Your task to perform on an android device: open app "Gboard" Image 0: 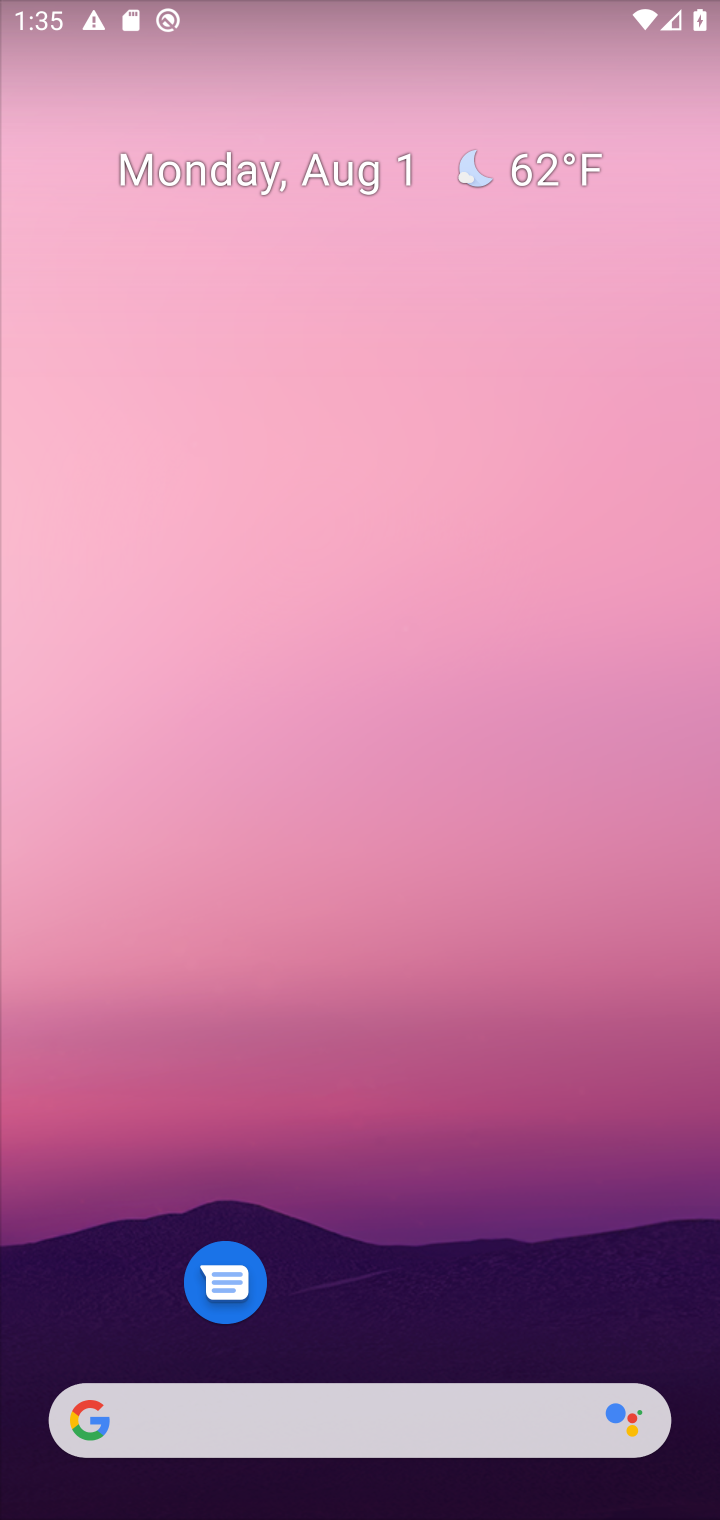
Step 0: drag from (415, 1392) to (369, 111)
Your task to perform on an android device: open app "Gboard" Image 1: 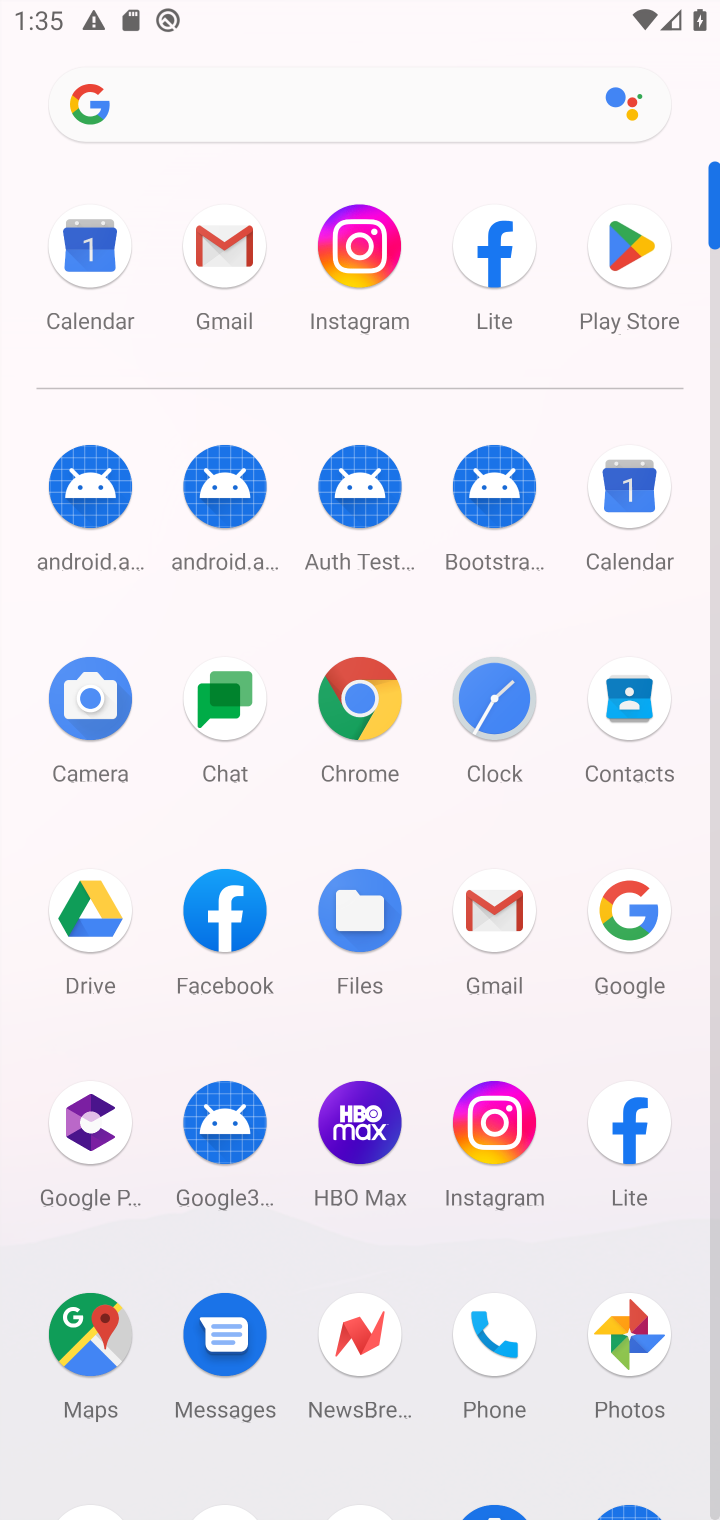
Step 1: click (625, 248)
Your task to perform on an android device: open app "Gboard" Image 2: 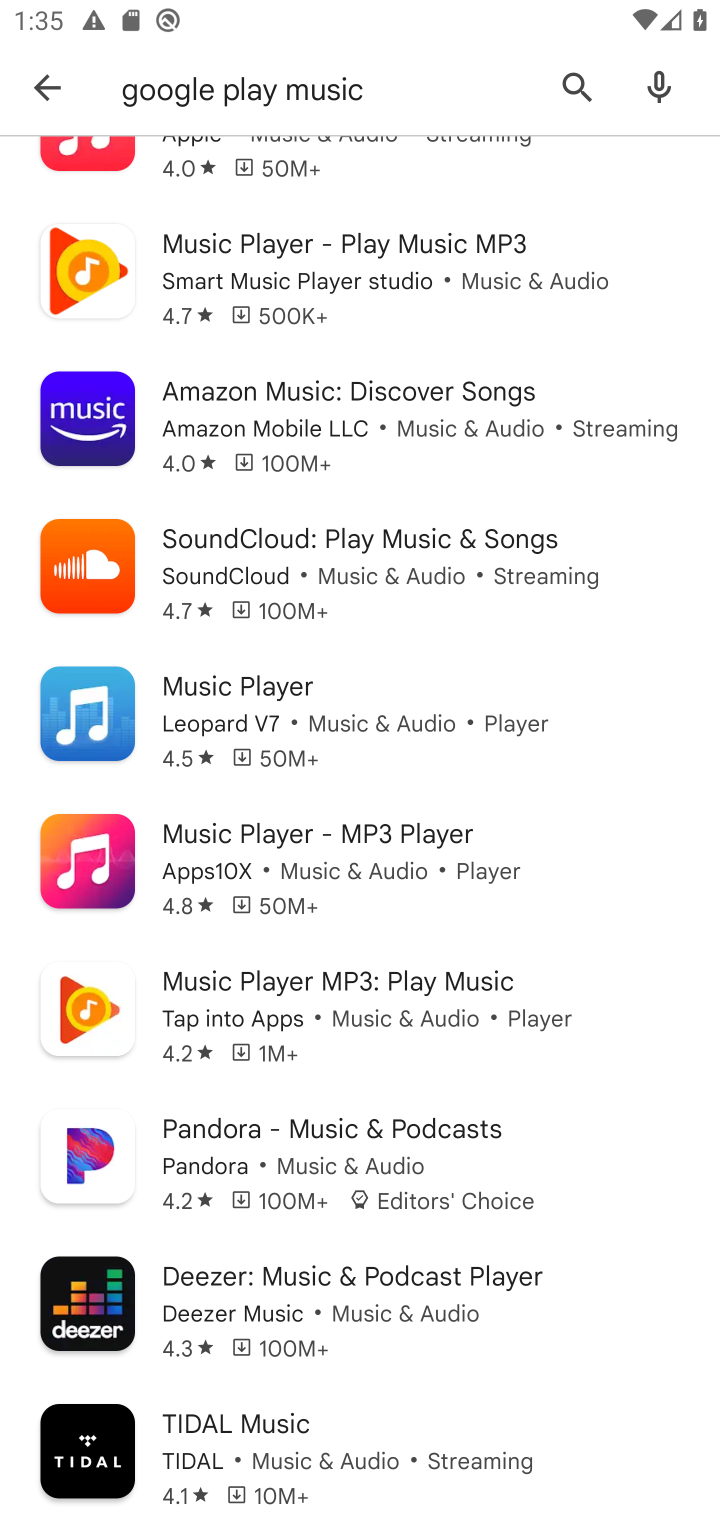
Step 2: click (42, 80)
Your task to perform on an android device: open app "Gboard" Image 3: 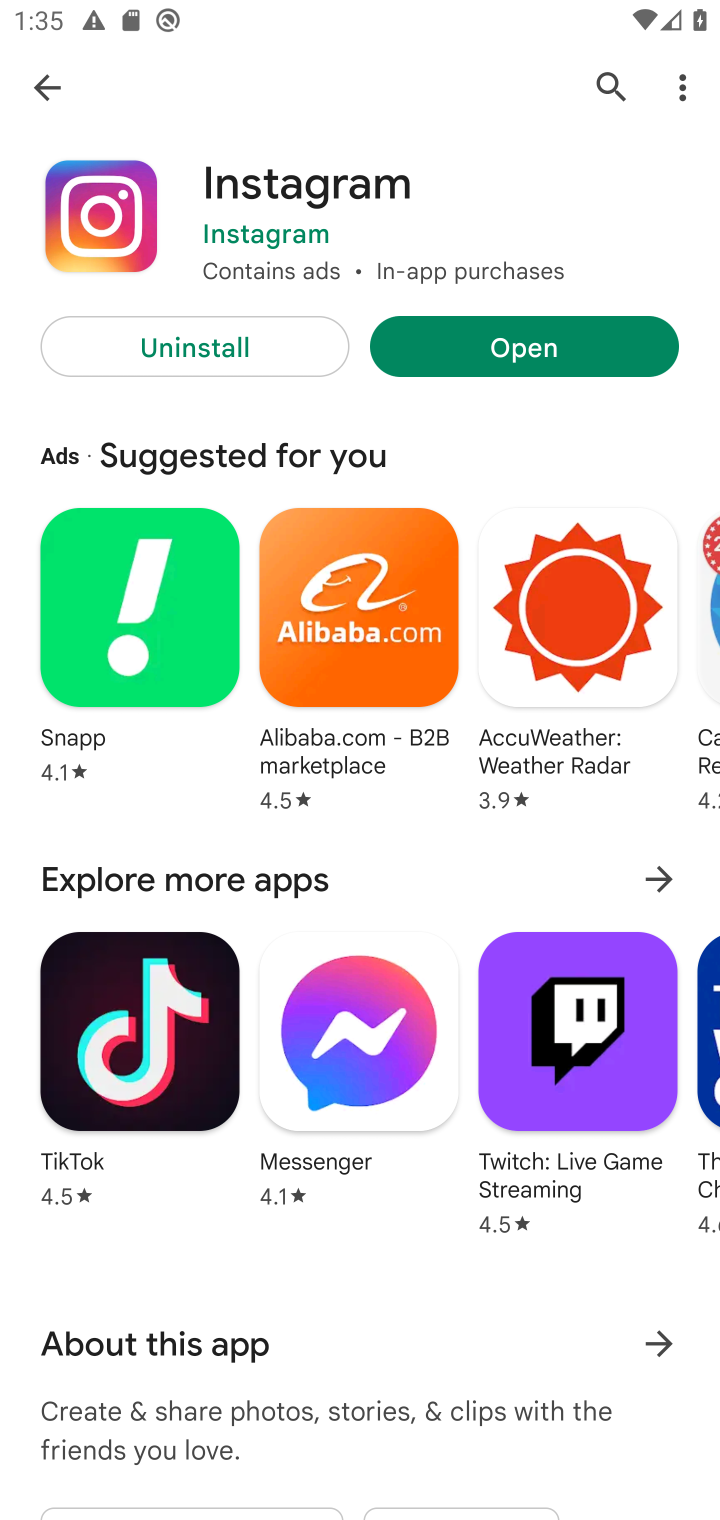
Step 3: click (39, 74)
Your task to perform on an android device: open app "Gboard" Image 4: 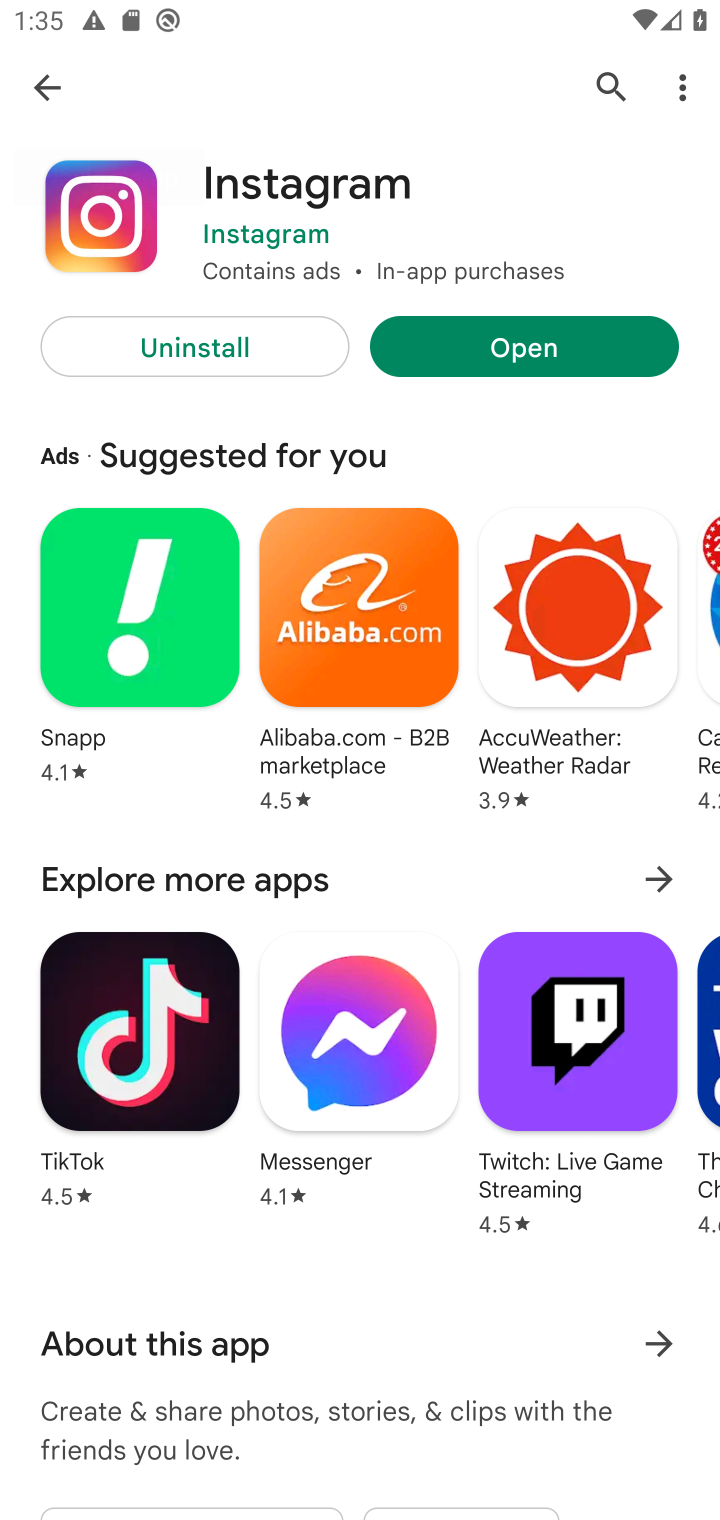
Step 4: click (50, 78)
Your task to perform on an android device: open app "Gboard" Image 5: 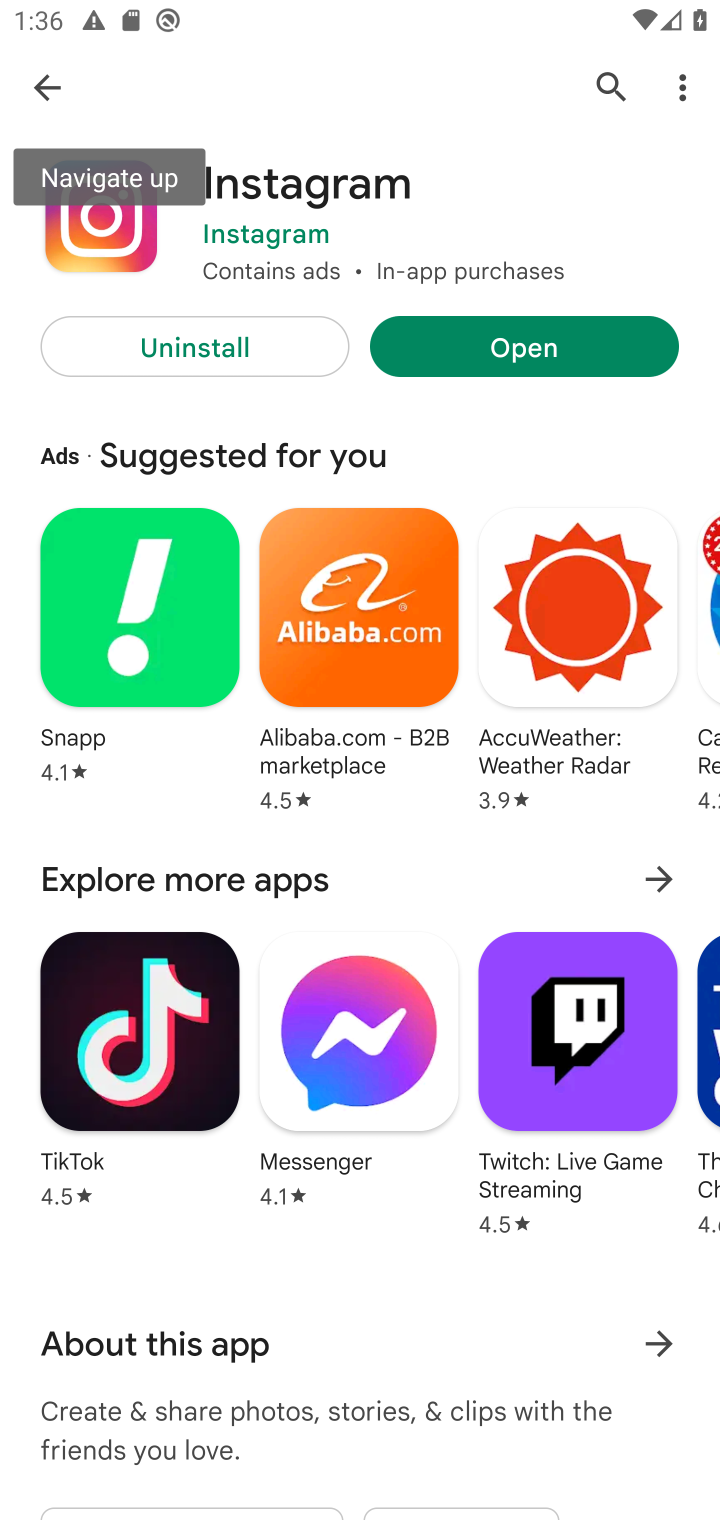
Step 5: click (50, 78)
Your task to perform on an android device: open app "Gboard" Image 6: 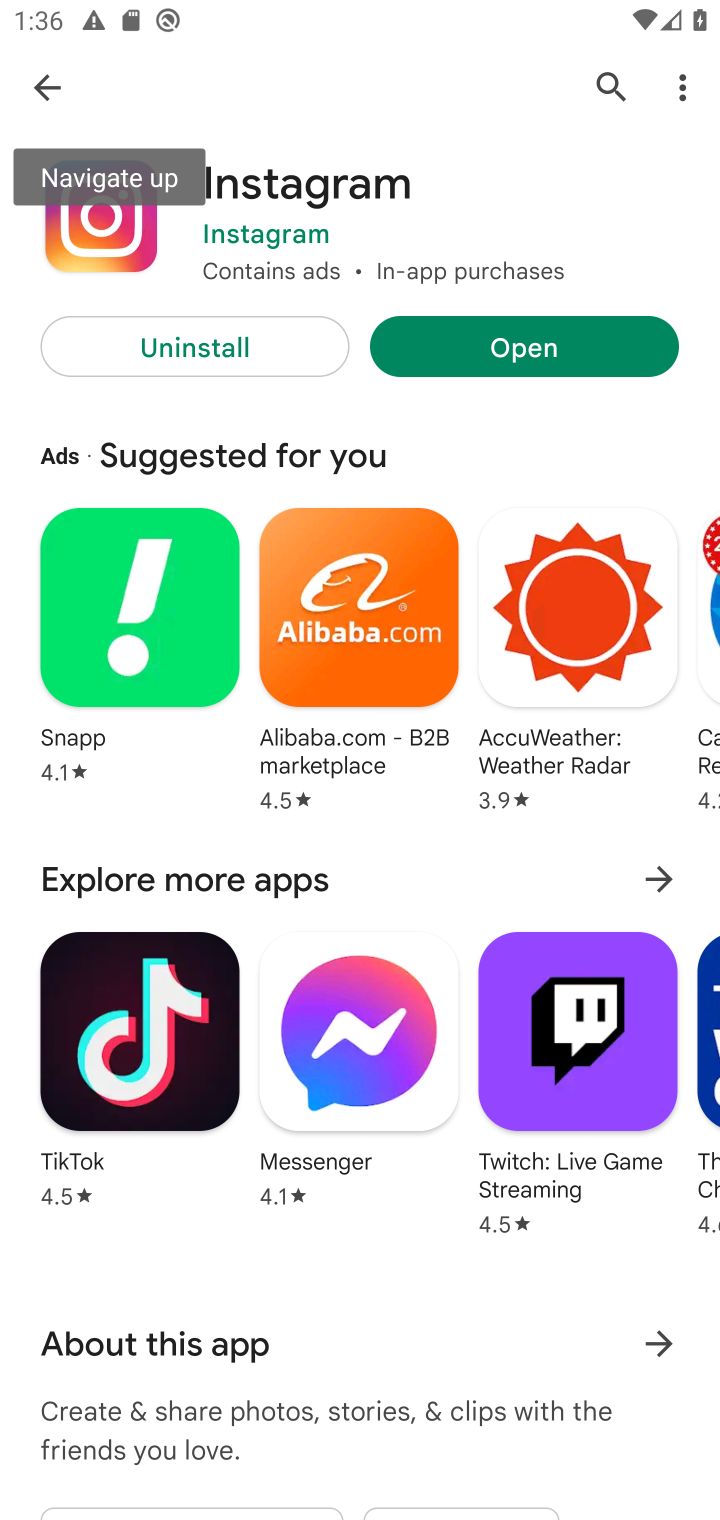
Step 6: click (50, 78)
Your task to perform on an android device: open app "Gboard" Image 7: 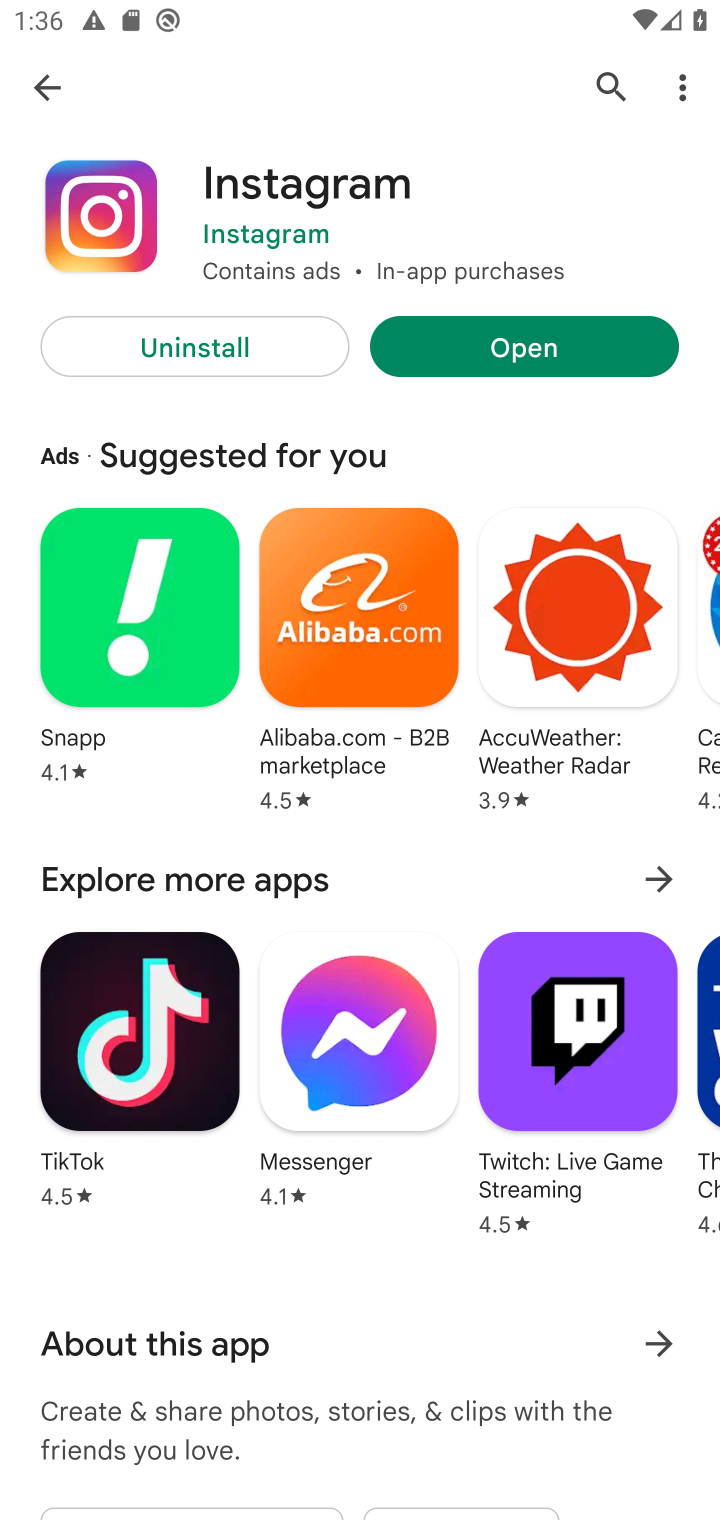
Step 7: click (601, 92)
Your task to perform on an android device: open app "Gboard" Image 8: 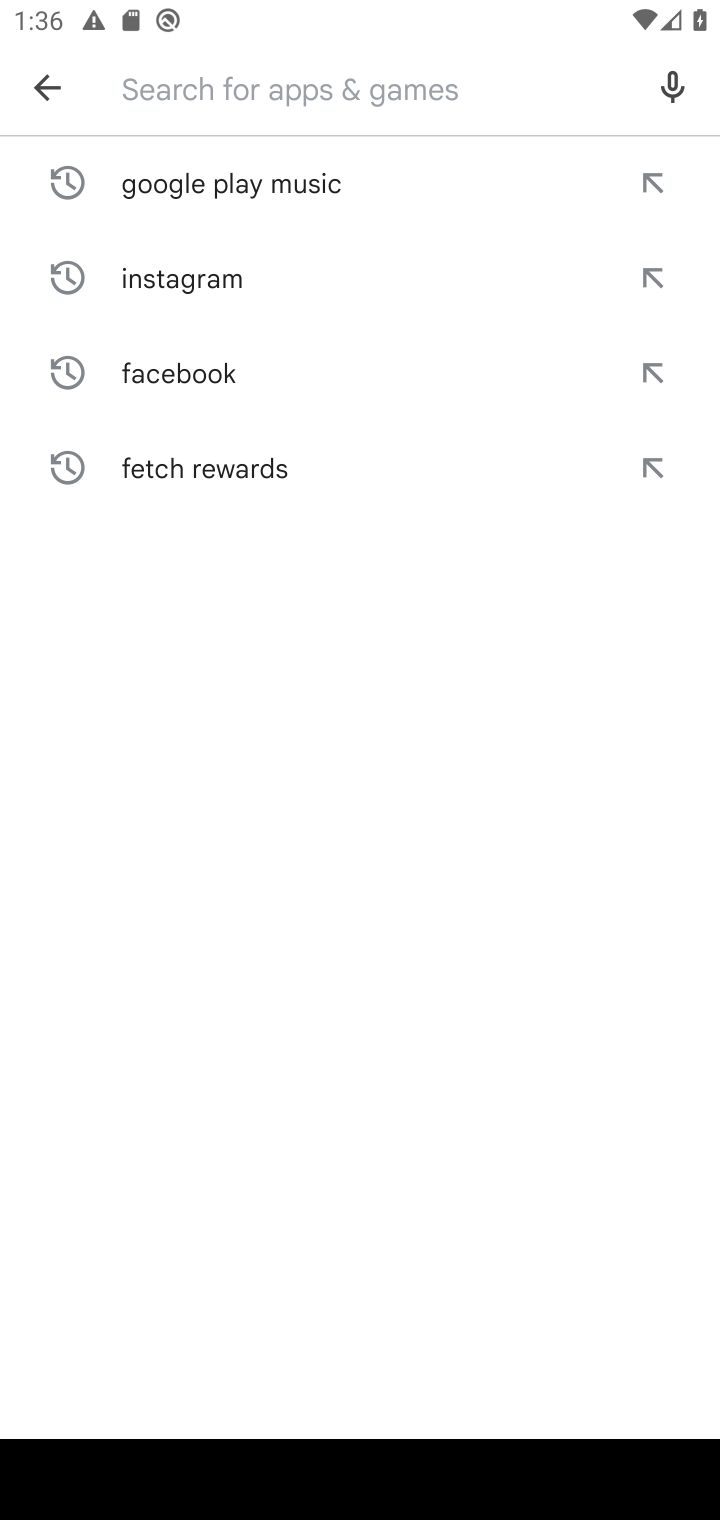
Step 8: type "Gboard"
Your task to perform on an android device: open app "Gboard" Image 9: 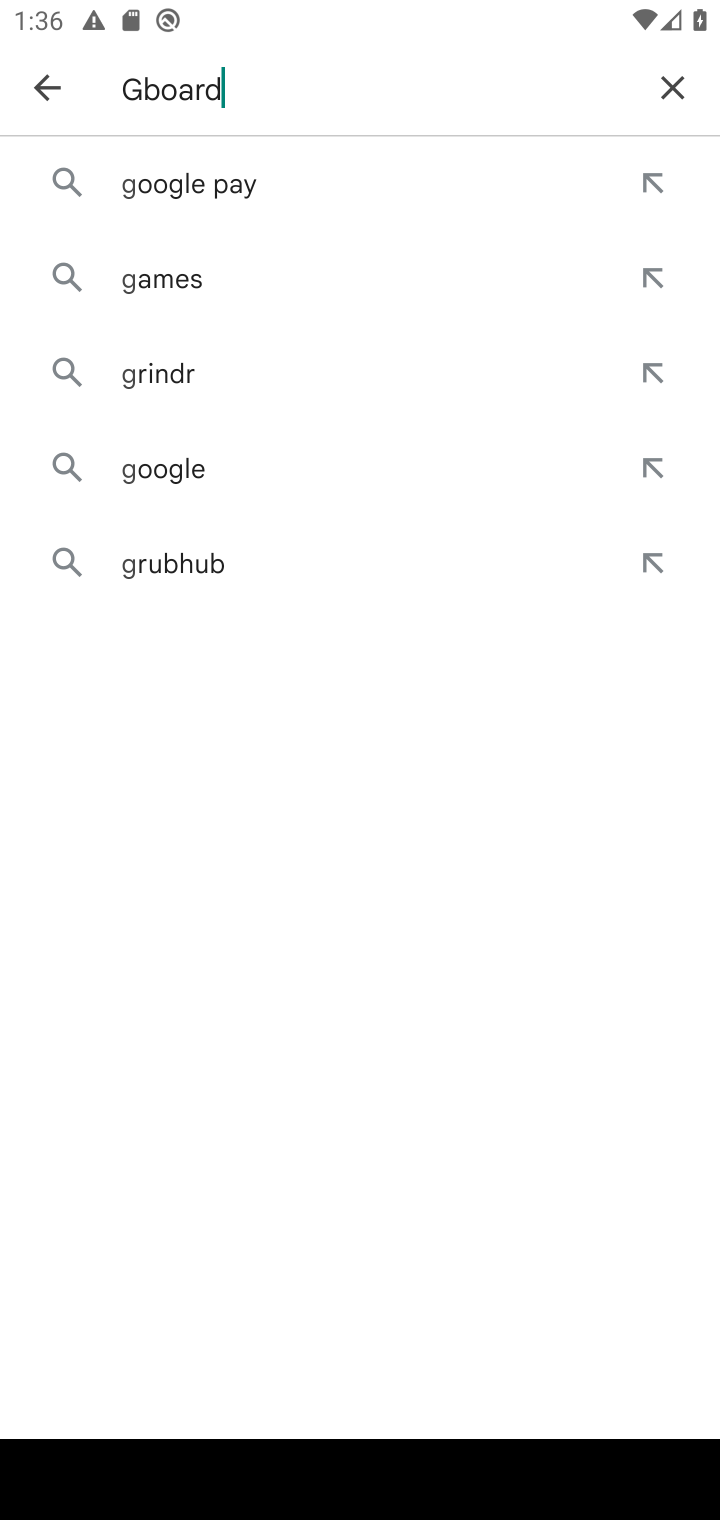
Step 9: type ""
Your task to perform on an android device: open app "Gboard" Image 10: 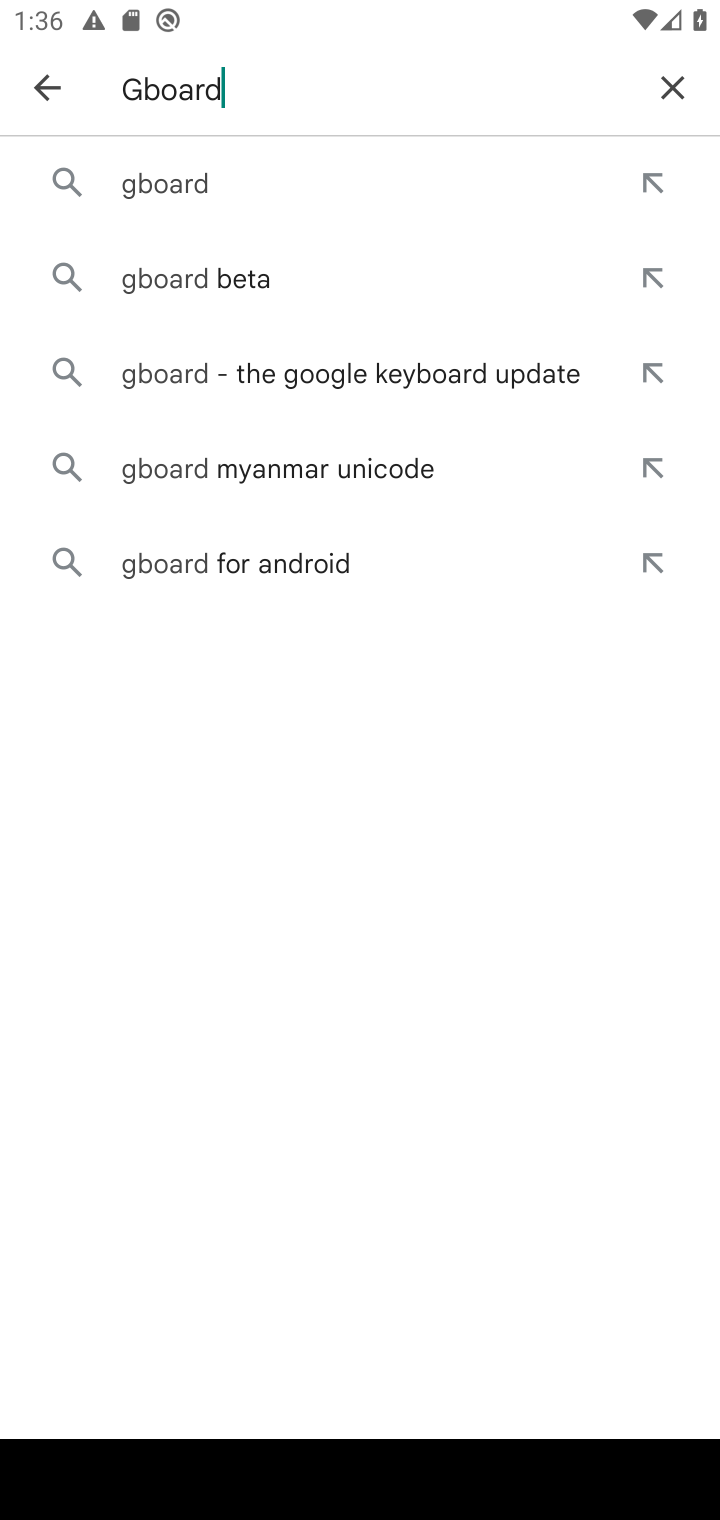
Step 10: click (158, 175)
Your task to perform on an android device: open app "Gboard" Image 11: 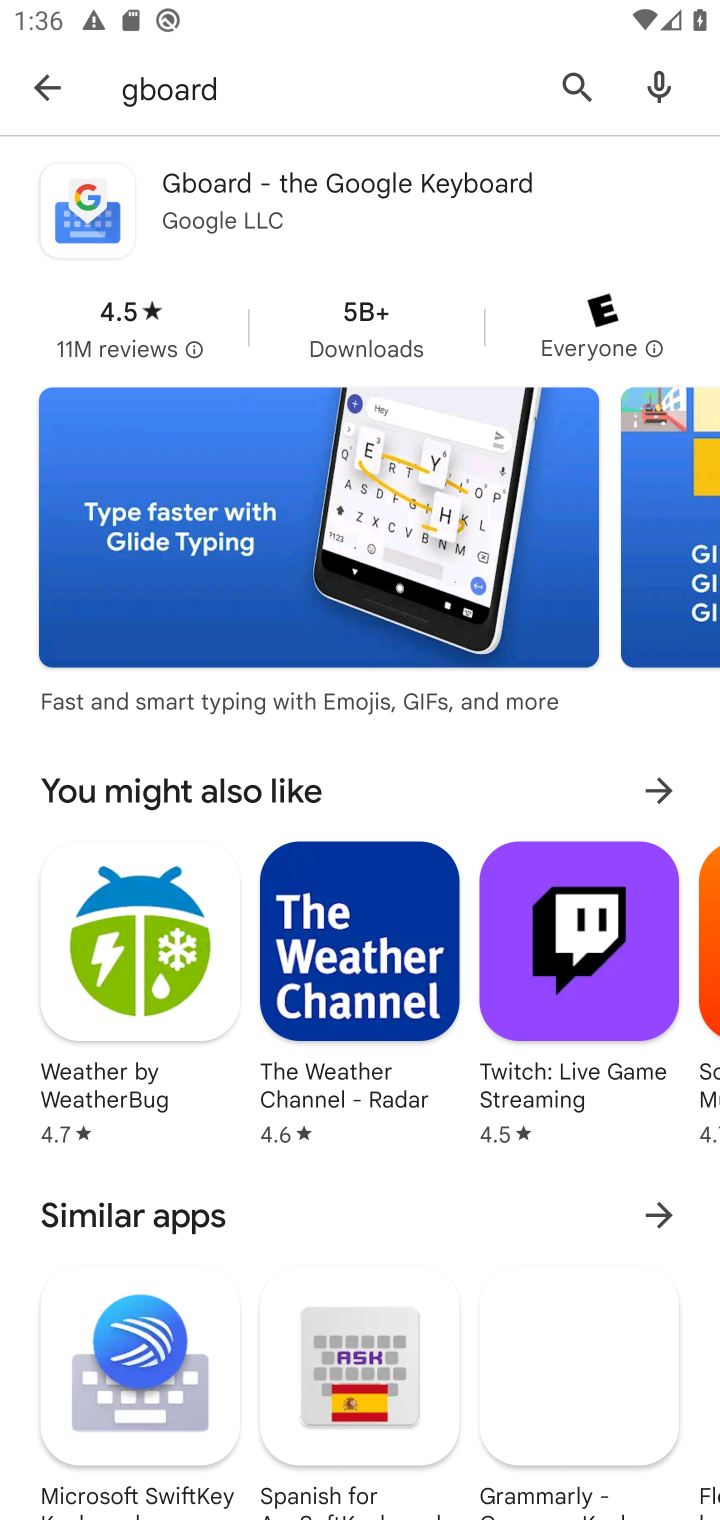
Step 11: click (166, 211)
Your task to perform on an android device: open app "Gboard" Image 12: 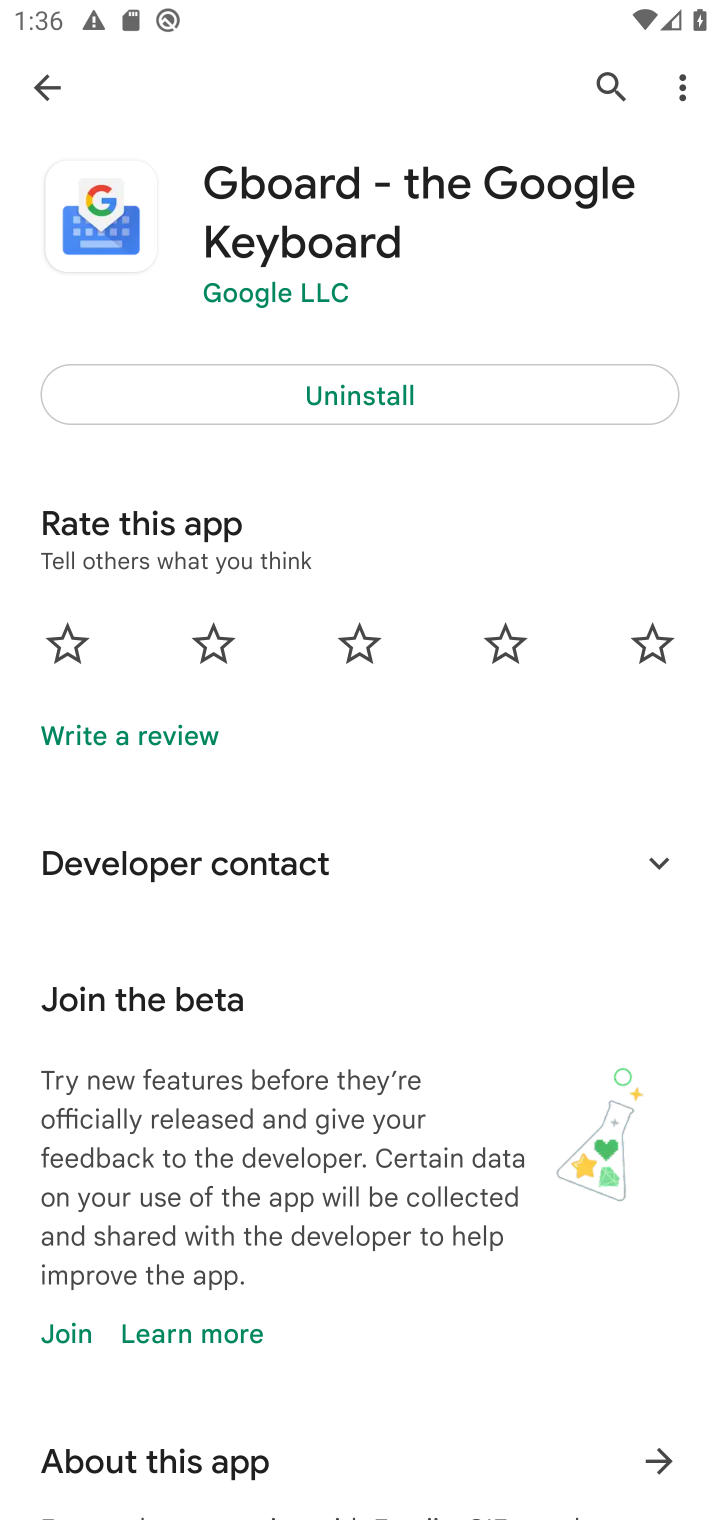
Step 12: task complete